Your task to perform on an android device: How much does a 2 bedroom apartment rent for in Boston? Image 0: 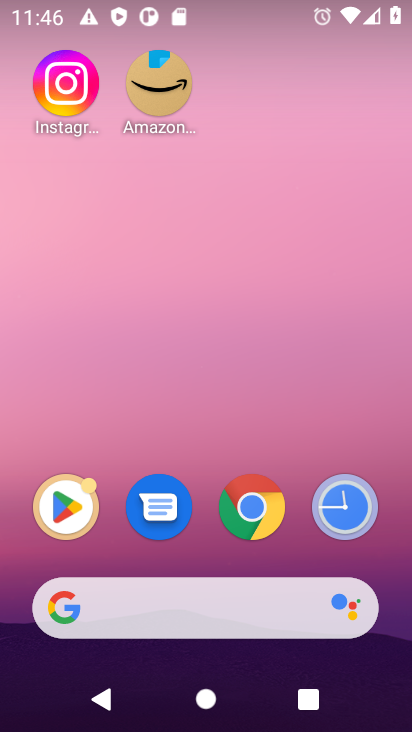
Step 0: press home button
Your task to perform on an android device: How much does a 2 bedroom apartment rent for in Boston? Image 1: 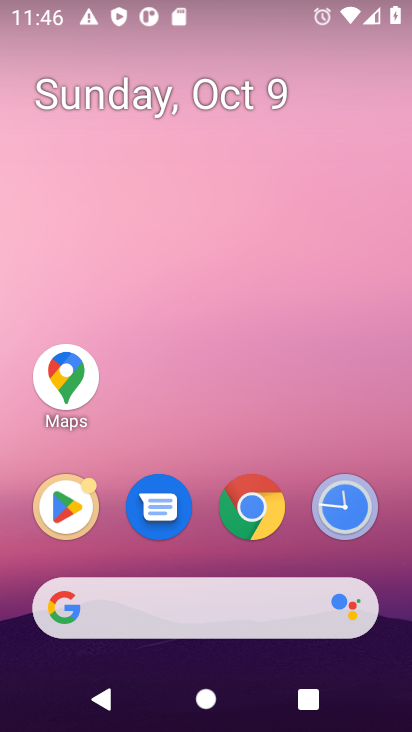
Step 1: click (232, 611)
Your task to perform on an android device: How much does a 2 bedroom apartment rent for in Boston? Image 2: 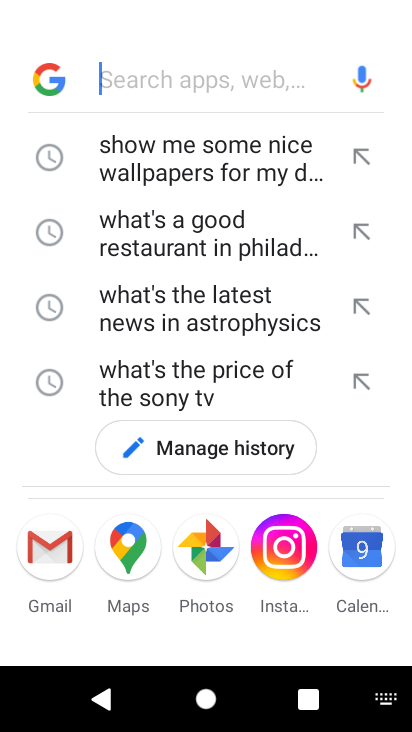
Step 2: press enter
Your task to perform on an android device: How much does a 2 bedroom apartment rent for in Boston? Image 3: 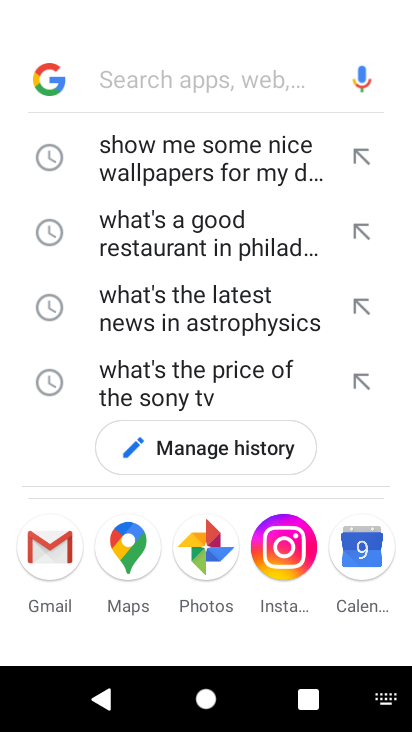
Step 3: type "2 bedroom apartment rent for in Boston"
Your task to perform on an android device: How much does a 2 bedroom apartment rent for in Boston? Image 4: 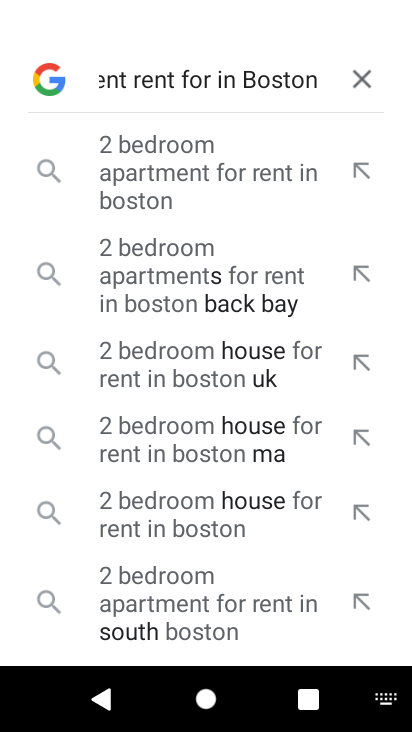
Step 4: click (212, 172)
Your task to perform on an android device: How much does a 2 bedroom apartment rent for in Boston? Image 5: 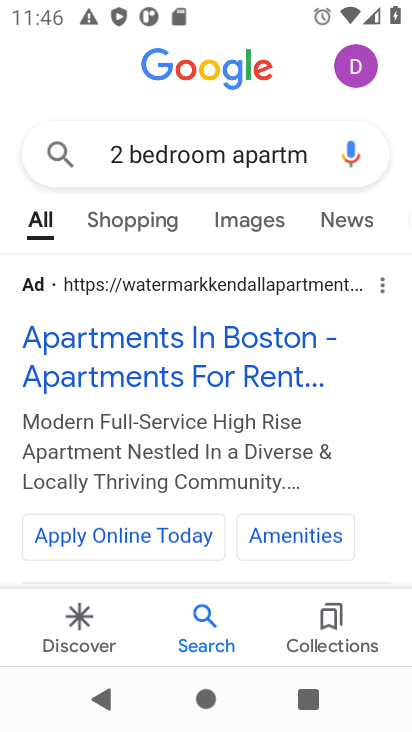
Step 5: click (209, 367)
Your task to perform on an android device: How much does a 2 bedroom apartment rent for in Boston? Image 6: 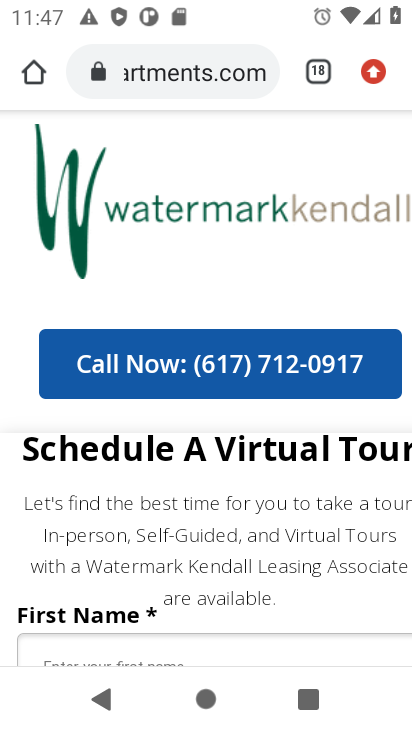
Step 6: task complete